Your task to perform on an android device: create a new album in the google photos Image 0: 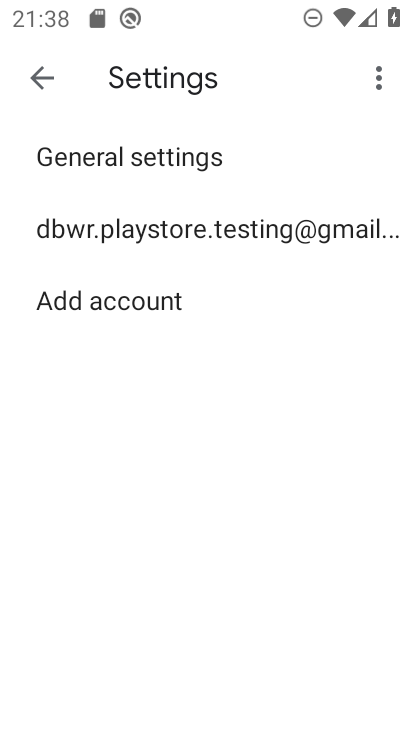
Step 0: press home button
Your task to perform on an android device: create a new album in the google photos Image 1: 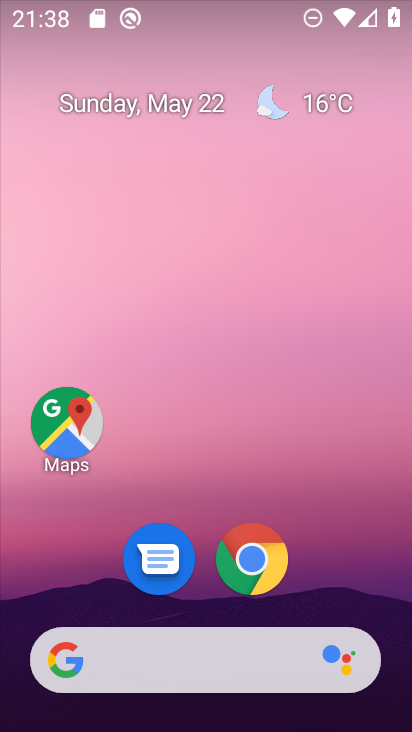
Step 1: drag from (256, 688) to (153, 216)
Your task to perform on an android device: create a new album in the google photos Image 2: 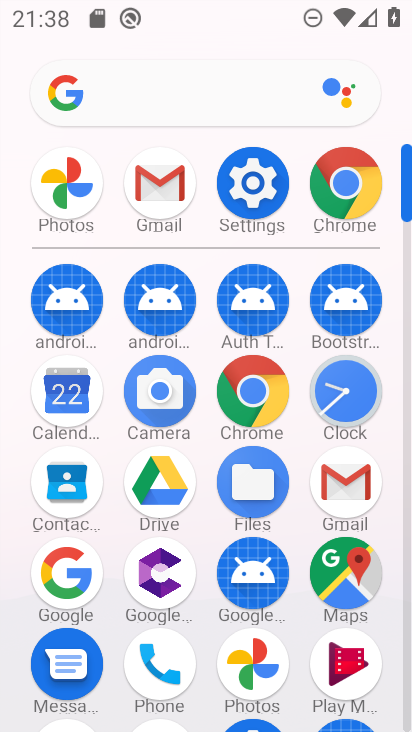
Step 2: click (258, 667)
Your task to perform on an android device: create a new album in the google photos Image 3: 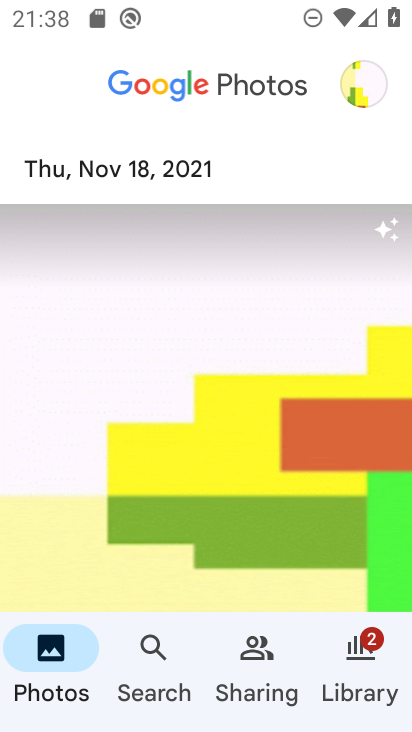
Step 3: click (261, 331)
Your task to perform on an android device: create a new album in the google photos Image 4: 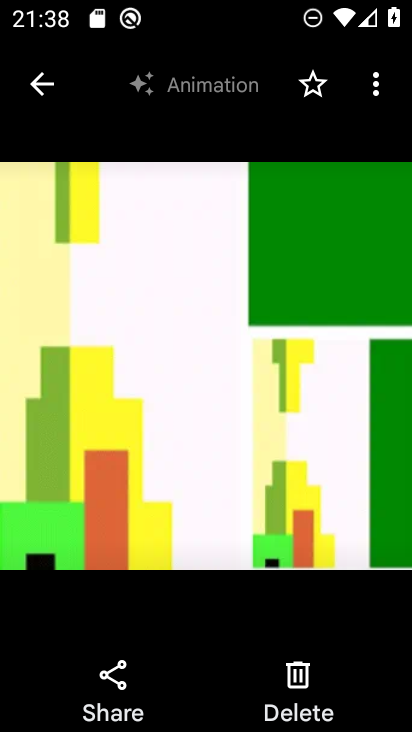
Step 4: click (386, 97)
Your task to perform on an android device: create a new album in the google photos Image 5: 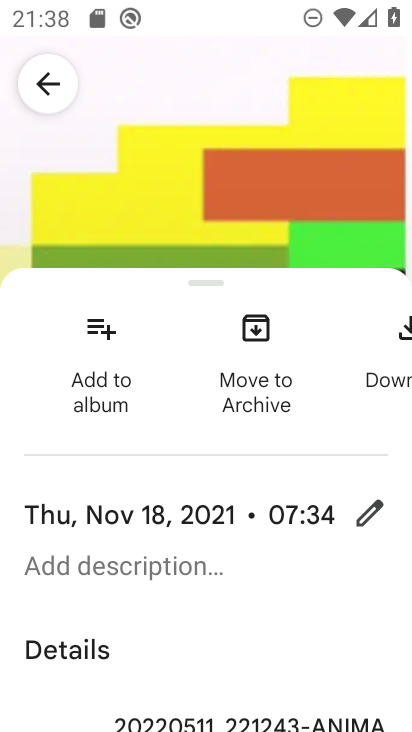
Step 5: click (108, 371)
Your task to perform on an android device: create a new album in the google photos Image 6: 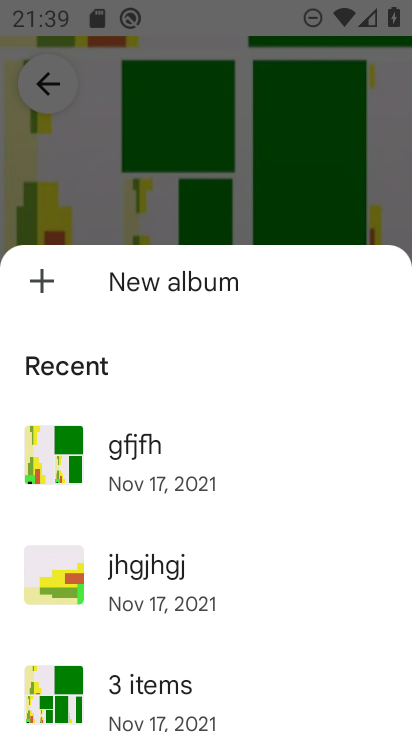
Step 6: click (73, 271)
Your task to perform on an android device: create a new album in the google photos Image 7: 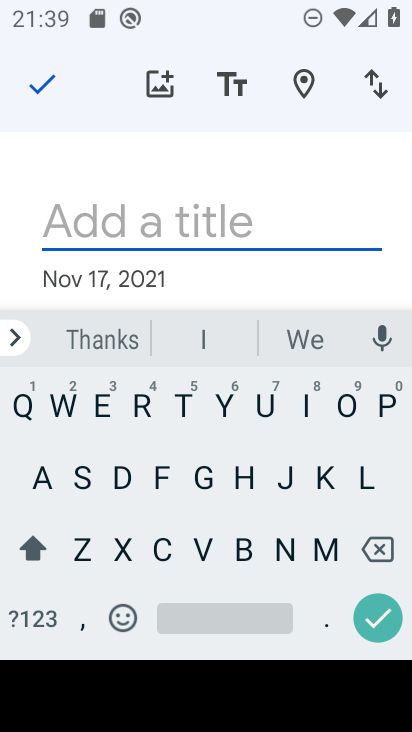
Step 7: click (214, 493)
Your task to perform on an android device: create a new album in the google photos Image 8: 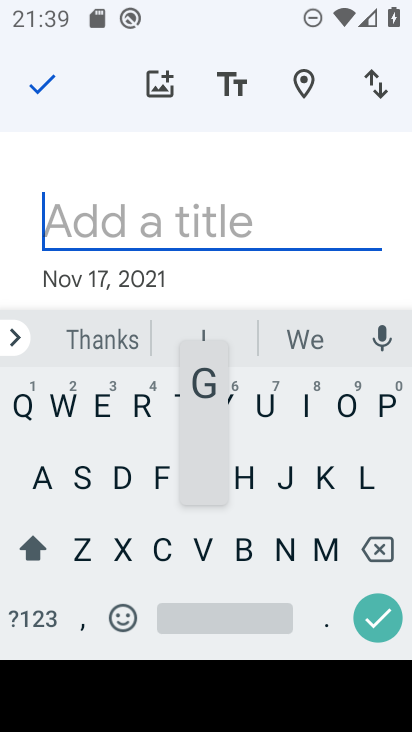
Step 8: click (38, 477)
Your task to perform on an android device: create a new album in the google photos Image 9: 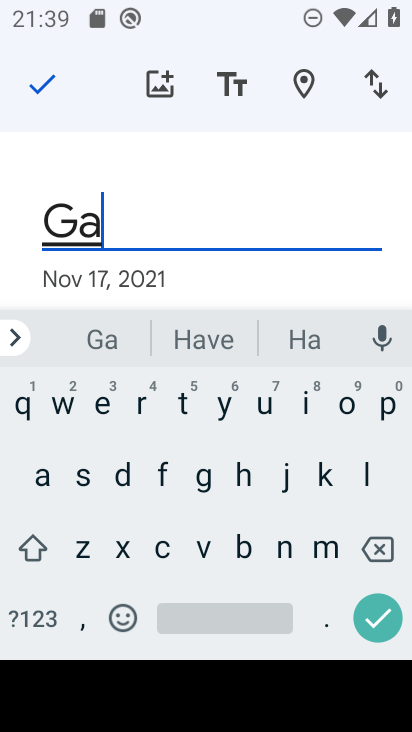
Step 9: click (73, 493)
Your task to perform on an android device: create a new album in the google photos Image 10: 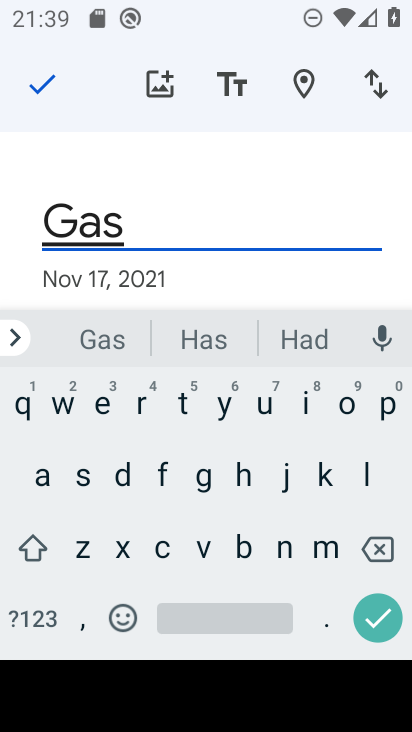
Step 10: click (58, 74)
Your task to perform on an android device: create a new album in the google photos Image 11: 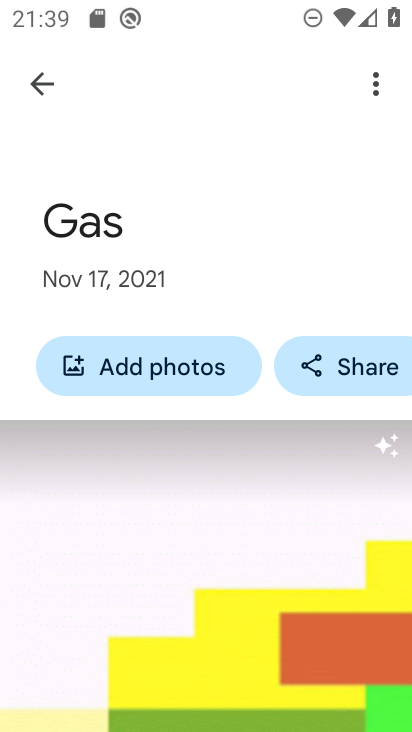
Step 11: task complete